Your task to perform on an android device: toggle airplane mode Image 0: 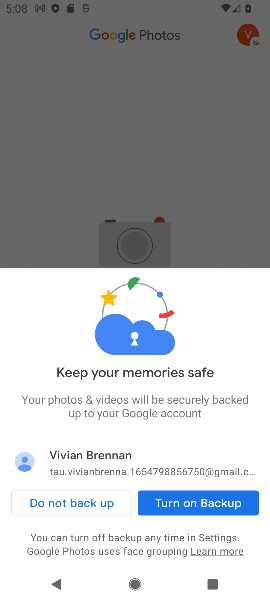
Step 0: press home button
Your task to perform on an android device: toggle airplane mode Image 1: 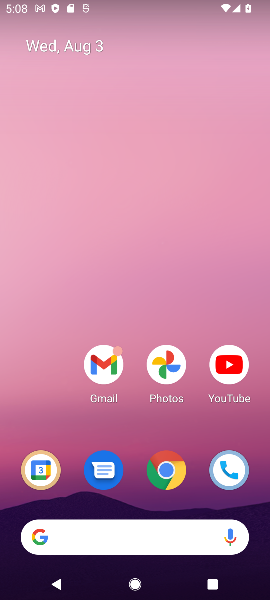
Step 1: drag from (136, 422) to (192, 32)
Your task to perform on an android device: toggle airplane mode Image 2: 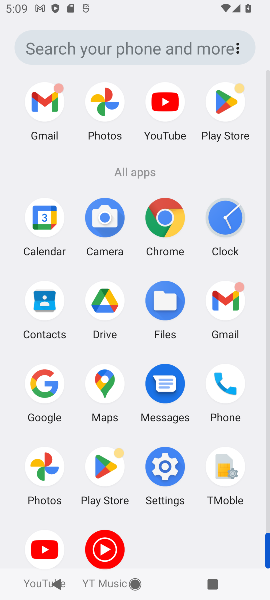
Step 2: click (163, 468)
Your task to perform on an android device: toggle airplane mode Image 3: 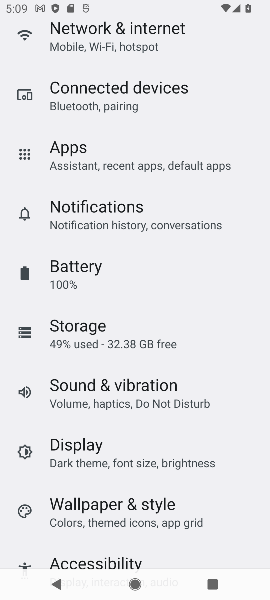
Step 3: drag from (142, 140) to (155, 479)
Your task to perform on an android device: toggle airplane mode Image 4: 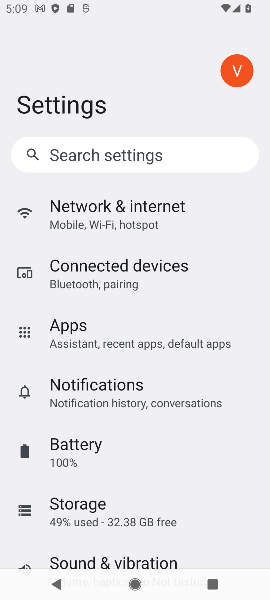
Step 4: click (141, 205)
Your task to perform on an android device: toggle airplane mode Image 5: 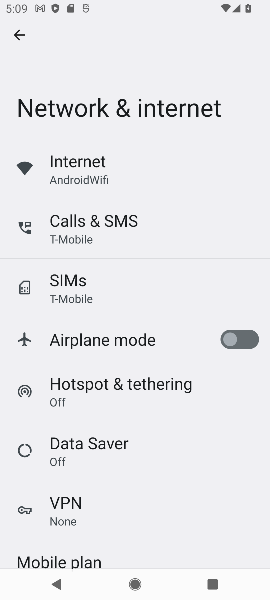
Step 5: click (238, 345)
Your task to perform on an android device: toggle airplane mode Image 6: 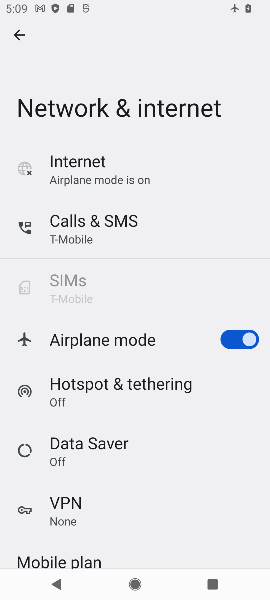
Step 6: task complete